Your task to perform on an android device: turn smart compose on in the gmail app Image 0: 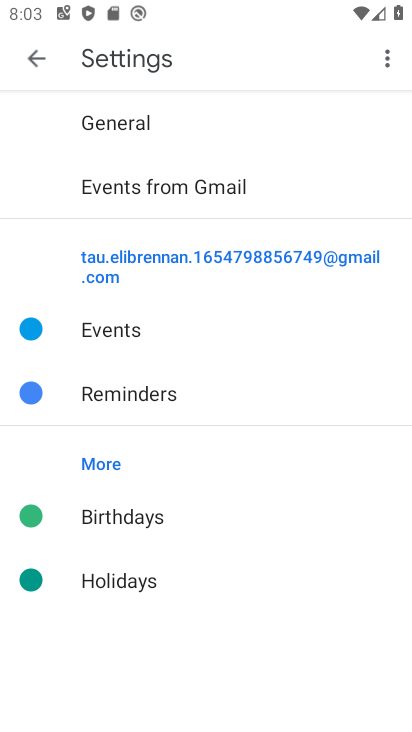
Step 0: press home button
Your task to perform on an android device: turn smart compose on in the gmail app Image 1: 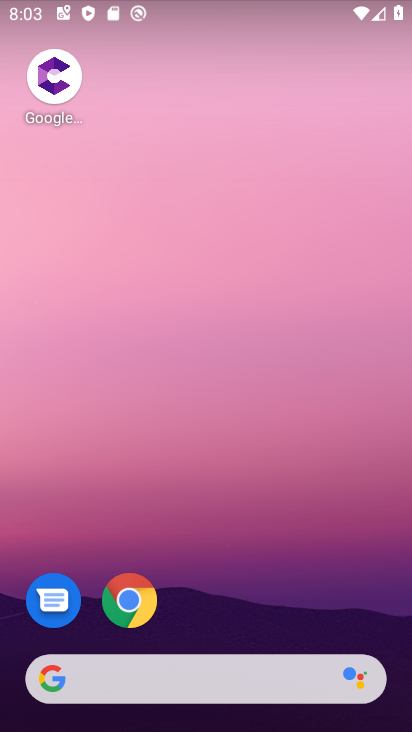
Step 1: drag from (232, 619) to (284, 99)
Your task to perform on an android device: turn smart compose on in the gmail app Image 2: 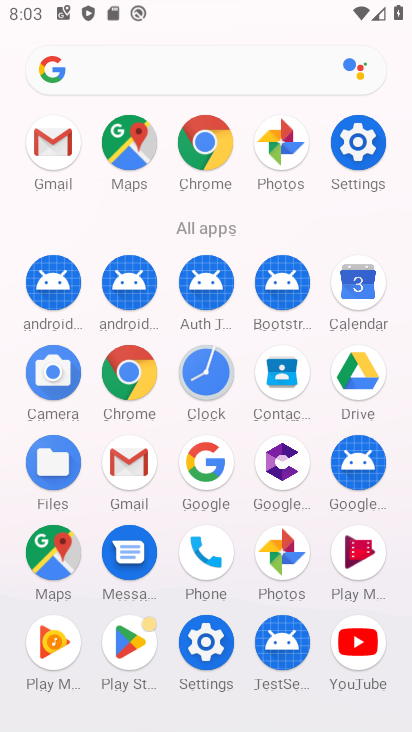
Step 2: click (130, 466)
Your task to perform on an android device: turn smart compose on in the gmail app Image 3: 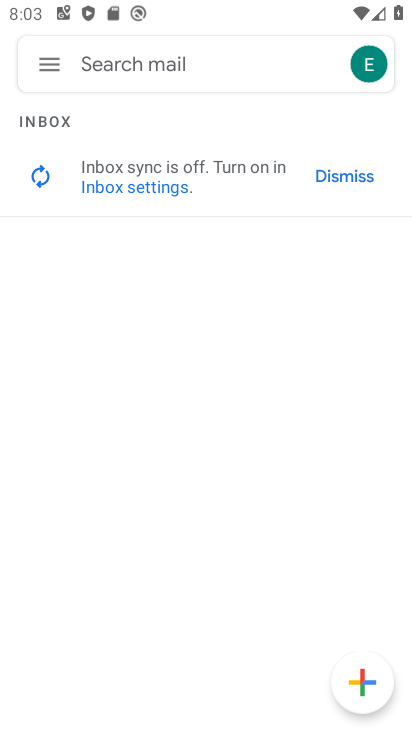
Step 3: click (59, 63)
Your task to perform on an android device: turn smart compose on in the gmail app Image 4: 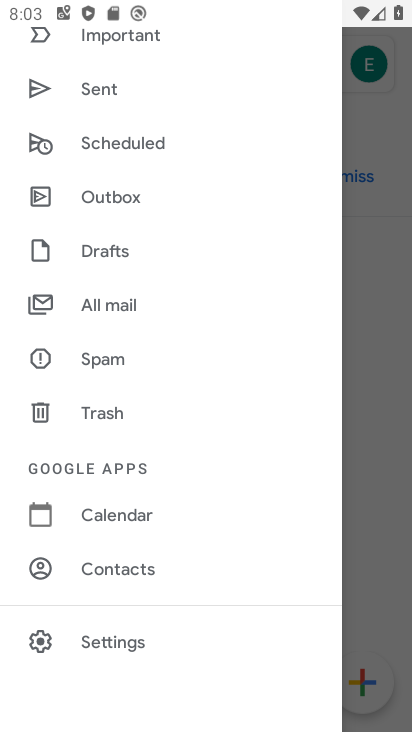
Step 4: click (112, 648)
Your task to perform on an android device: turn smart compose on in the gmail app Image 5: 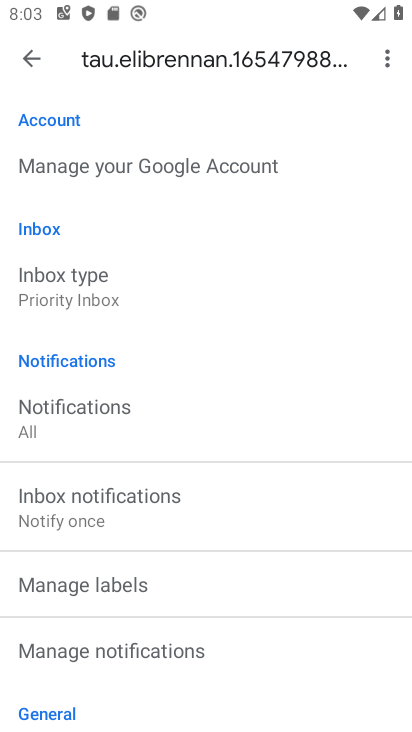
Step 5: task complete